Your task to perform on an android device: turn off picture-in-picture Image 0: 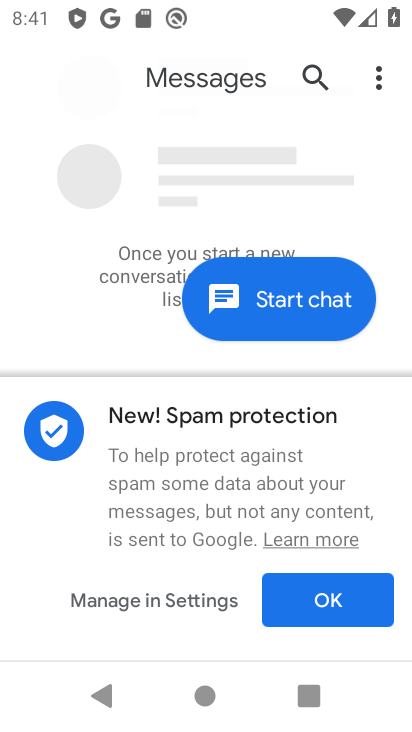
Step 0: press back button
Your task to perform on an android device: turn off picture-in-picture Image 1: 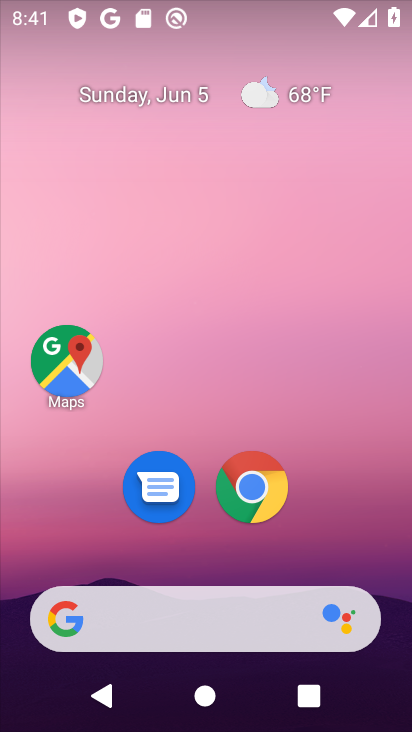
Step 1: drag from (246, 560) to (263, 14)
Your task to perform on an android device: turn off picture-in-picture Image 2: 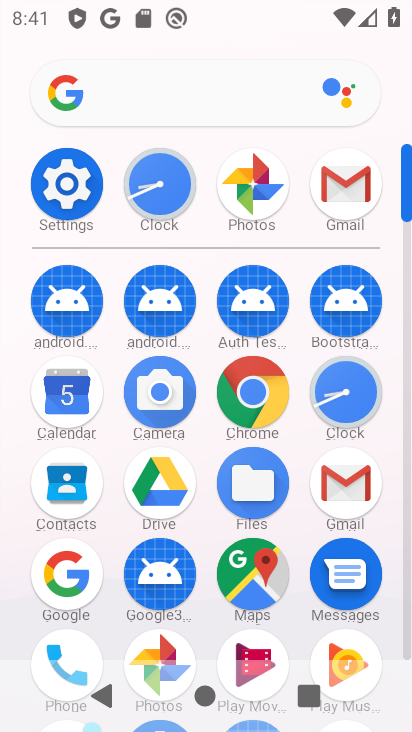
Step 2: click (70, 181)
Your task to perform on an android device: turn off picture-in-picture Image 3: 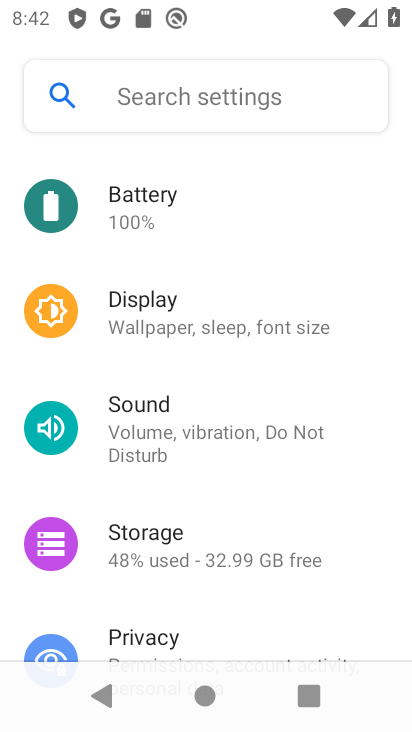
Step 3: drag from (211, 202) to (214, 610)
Your task to perform on an android device: turn off picture-in-picture Image 4: 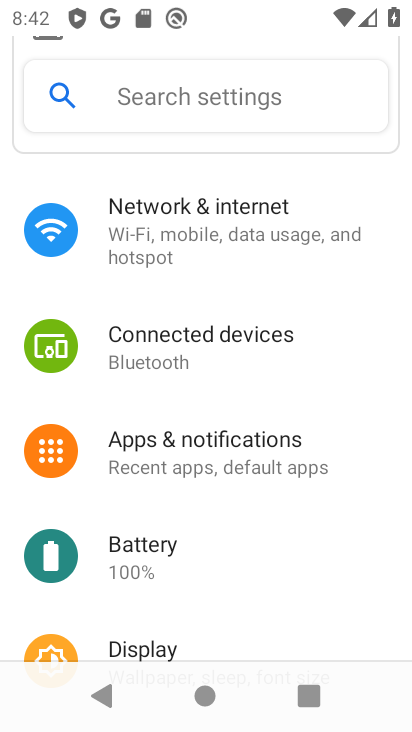
Step 4: click (213, 444)
Your task to perform on an android device: turn off picture-in-picture Image 5: 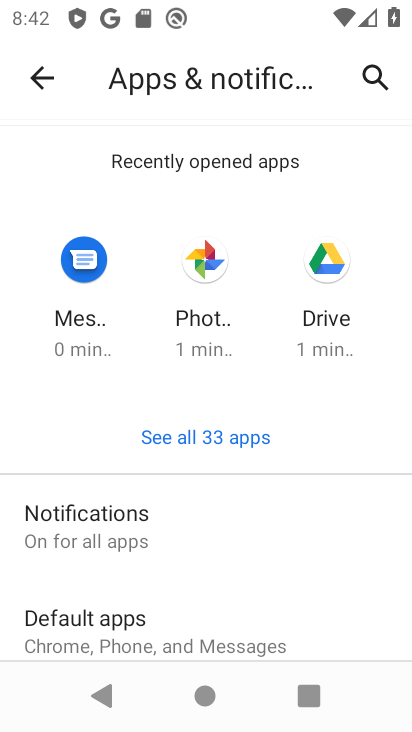
Step 5: click (121, 530)
Your task to perform on an android device: turn off picture-in-picture Image 6: 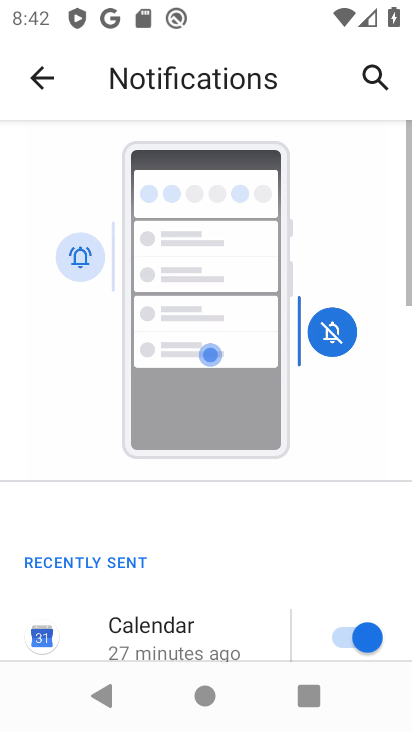
Step 6: drag from (178, 618) to (241, 148)
Your task to perform on an android device: turn off picture-in-picture Image 7: 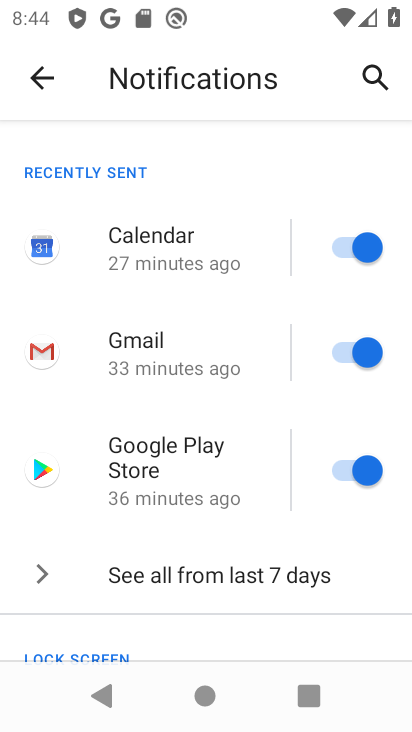
Step 7: drag from (172, 603) to (328, 51)
Your task to perform on an android device: turn off picture-in-picture Image 8: 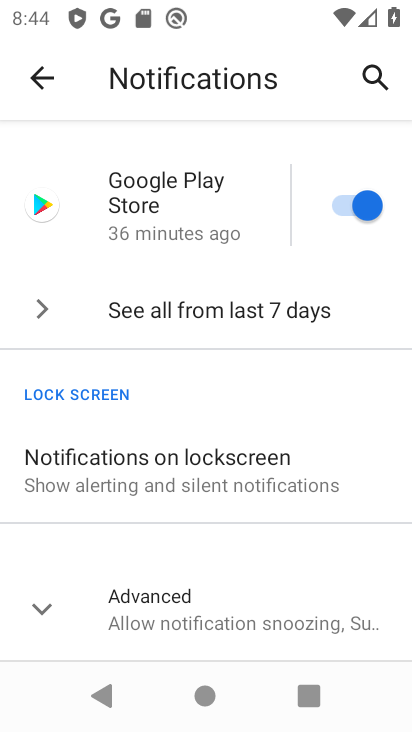
Step 8: click (165, 605)
Your task to perform on an android device: turn off picture-in-picture Image 9: 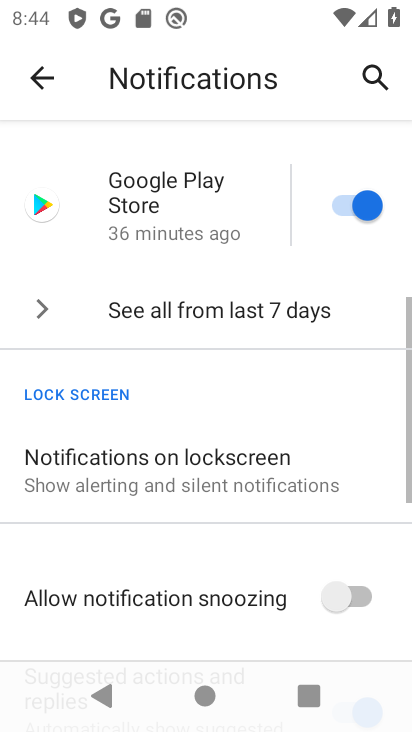
Step 9: drag from (168, 609) to (252, 61)
Your task to perform on an android device: turn off picture-in-picture Image 10: 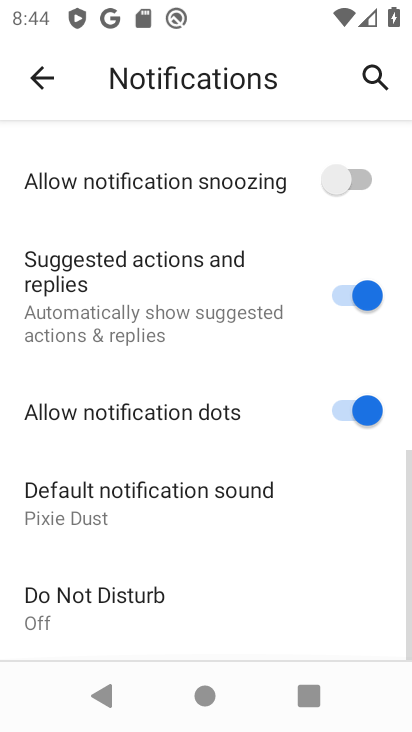
Step 10: drag from (153, 597) to (261, 85)
Your task to perform on an android device: turn off picture-in-picture Image 11: 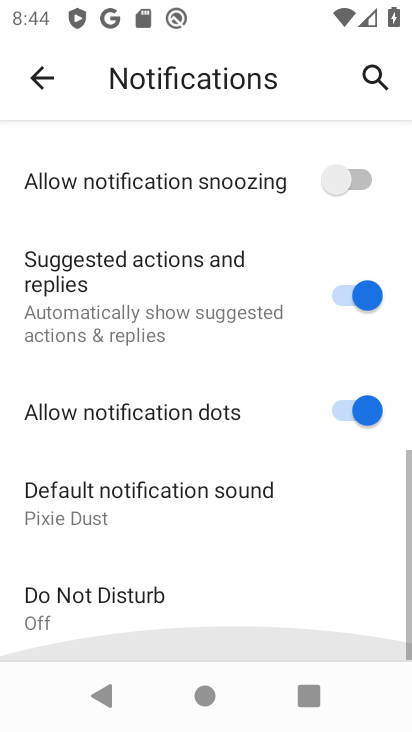
Step 11: click (30, 78)
Your task to perform on an android device: turn off picture-in-picture Image 12: 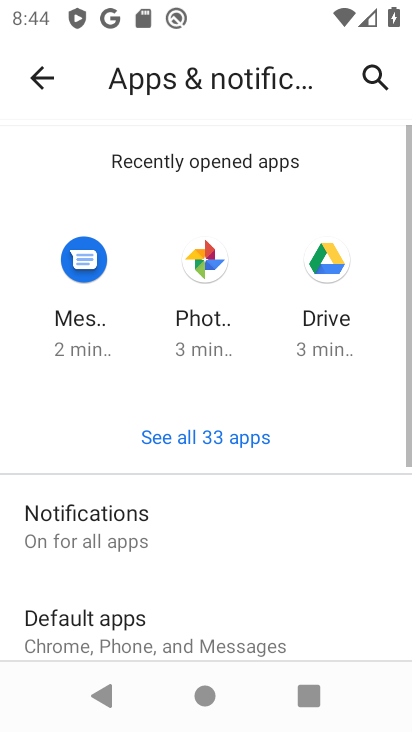
Step 12: drag from (156, 618) to (227, 66)
Your task to perform on an android device: turn off picture-in-picture Image 13: 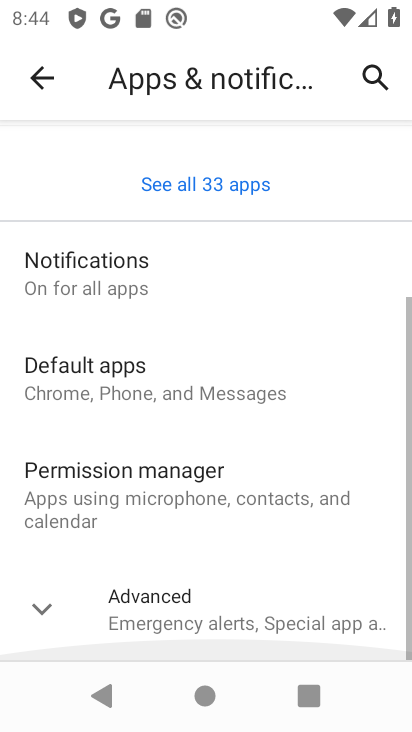
Step 13: drag from (125, 610) to (198, 56)
Your task to perform on an android device: turn off picture-in-picture Image 14: 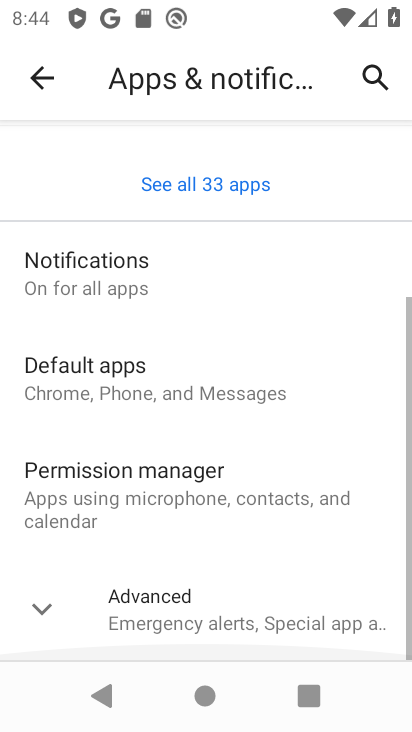
Step 14: click (168, 652)
Your task to perform on an android device: turn off picture-in-picture Image 15: 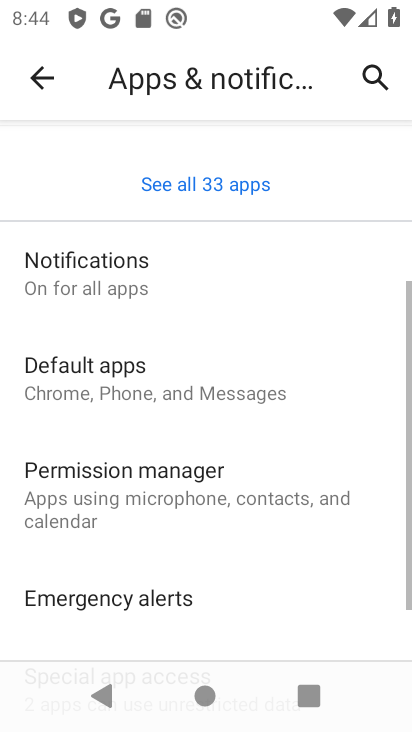
Step 15: drag from (163, 622) to (287, 40)
Your task to perform on an android device: turn off picture-in-picture Image 16: 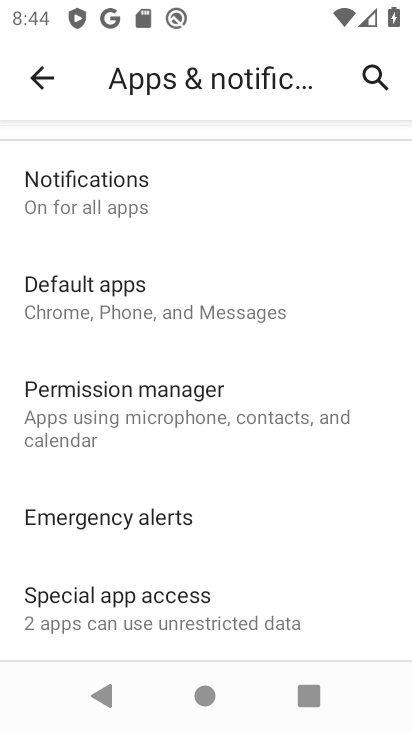
Step 16: click (149, 600)
Your task to perform on an android device: turn off picture-in-picture Image 17: 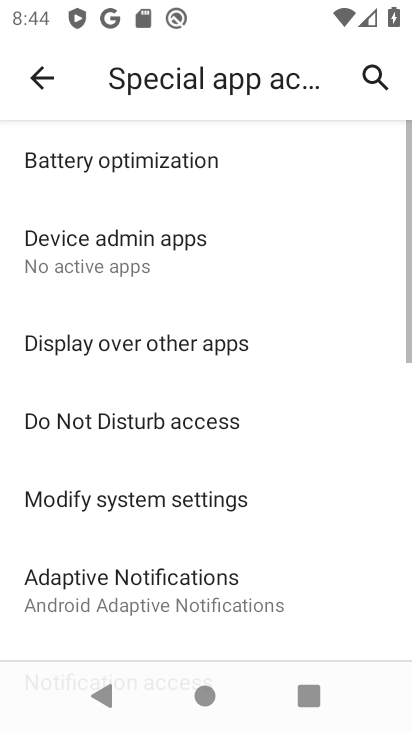
Step 17: drag from (152, 566) to (201, 86)
Your task to perform on an android device: turn off picture-in-picture Image 18: 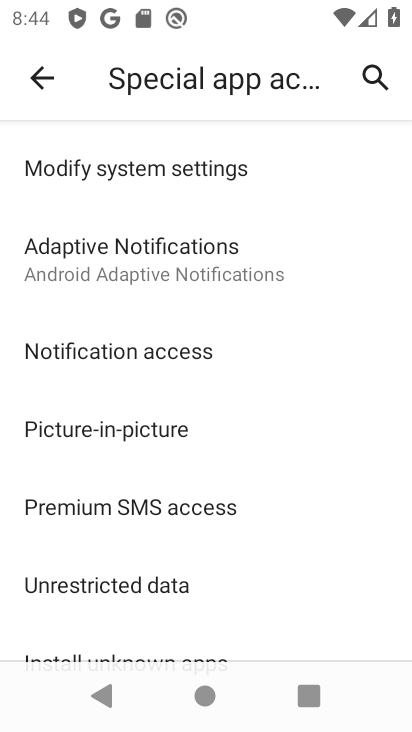
Step 18: click (119, 437)
Your task to perform on an android device: turn off picture-in-picture Image 19: 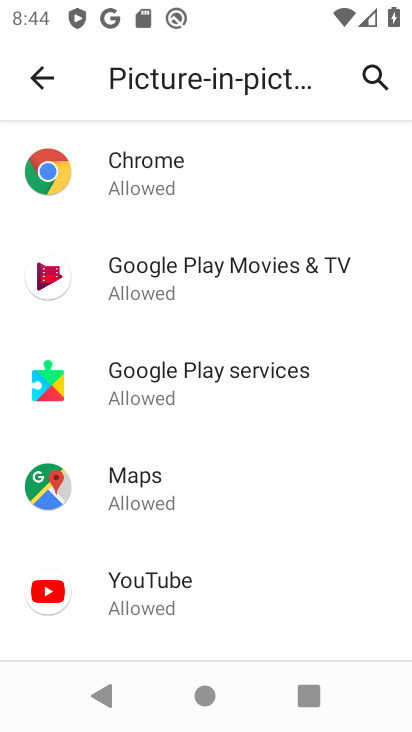
Step 19: click (155, 162)
Your task to perform on an android device: turn off picture-in-picture Image 20: 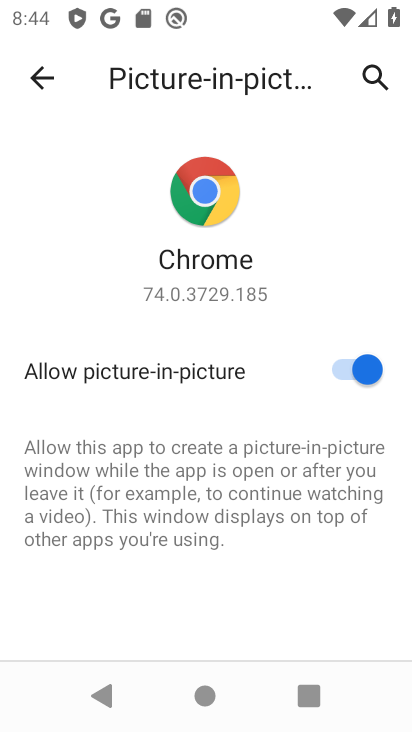
Step 20: click (357, 364)
Your task to perform on an android device: turn off picture-in-picture Image 21: 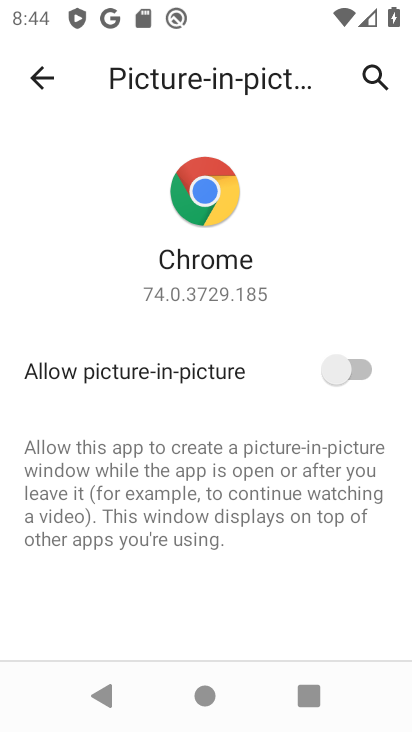
Step 21: task complete